Your task to perform on an android device: toggle airplane mode Image 0: 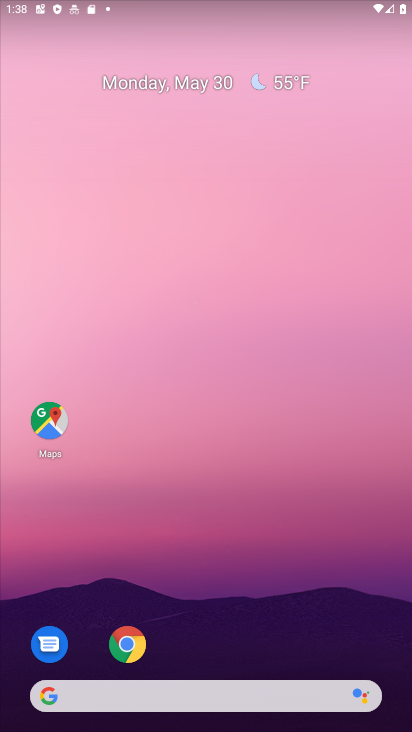
Step 0: drag from (340, 621) to (63, 15)
Your task to perform on an android device: toggle airplane mode Image 1: 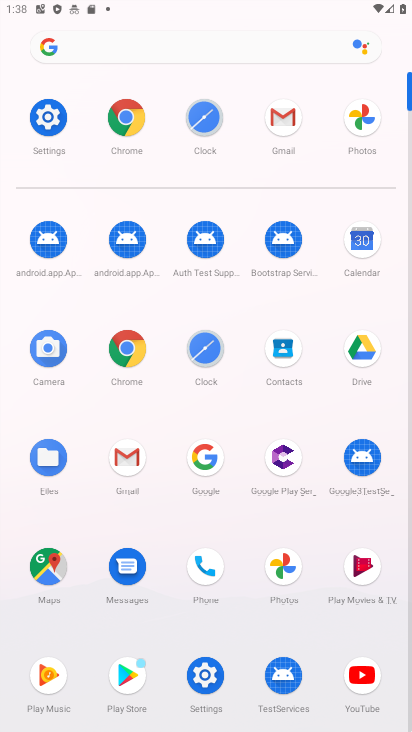
Step 1: click (32, 119)
Your task to perform on an android device: toggle airplane mode Image 2: 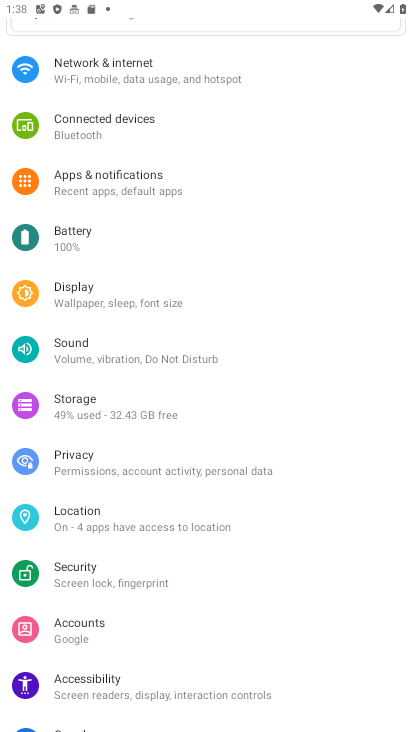
Step 2: click (133, 73)
Your task to perform on an android device: toggle airplane mode Image 3: 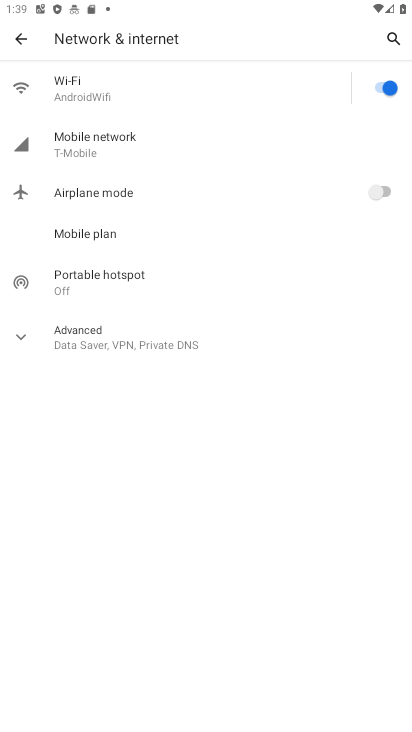
Step 3: task complete